Your task to perform on an android device: see sites visited before in the chrome app Image 0: 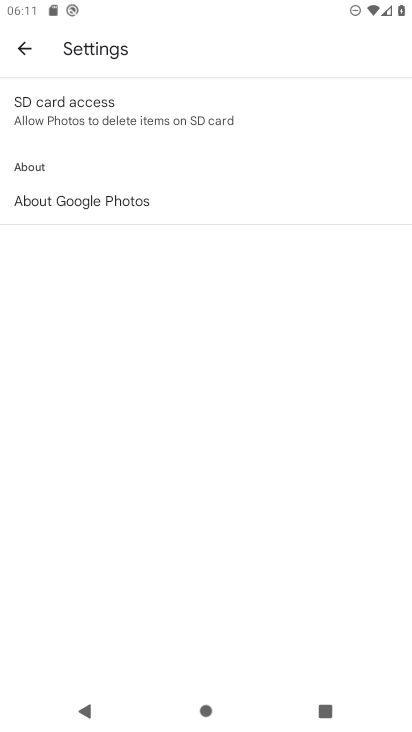
Step 0: press home button
Your task to perform on an android device: see sites visited before in the chrome app Image 1: 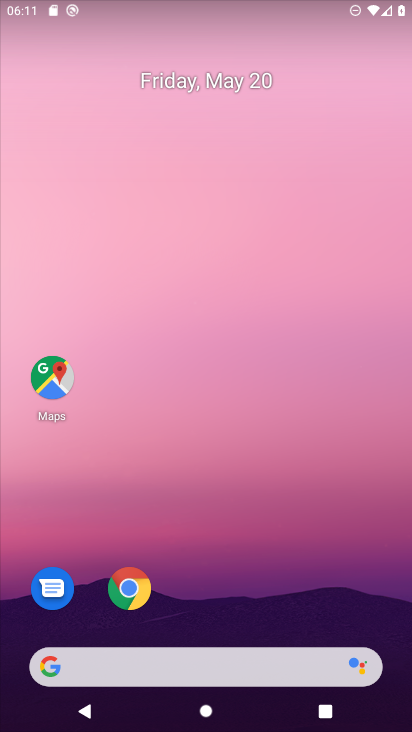
Step 1: click (121, 590)
Your task to perform on an android device: see sites visited before in the chrome app Image 2: 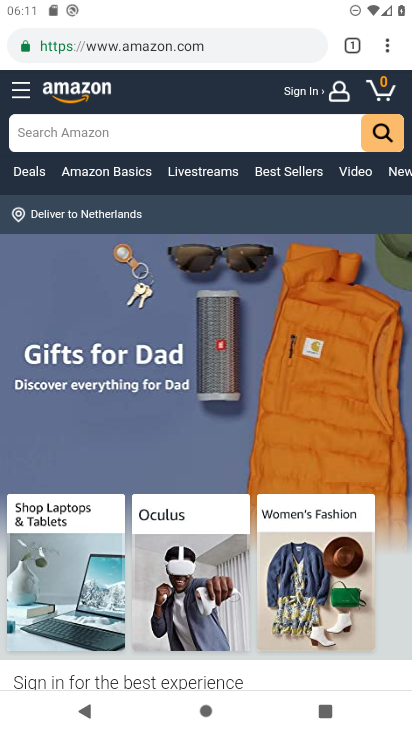
Step 2: click (389, 40)
Your task to perform on an android device: see sites visited before in the chrome app Image 3: 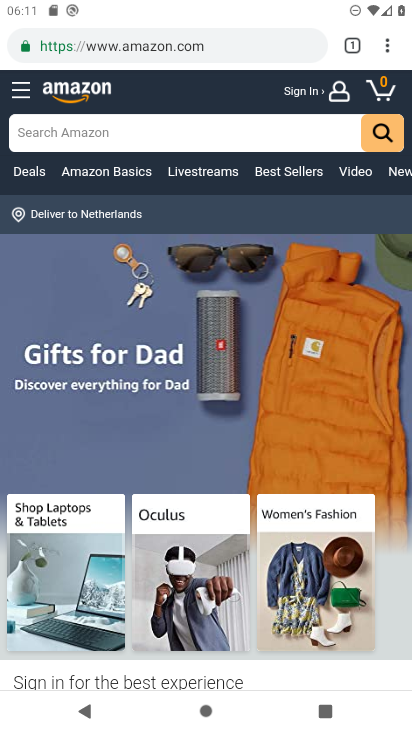
Step 3: click (389, 46)
Your task to perform on an android device: see sites visited before in the chrome app Image 4: 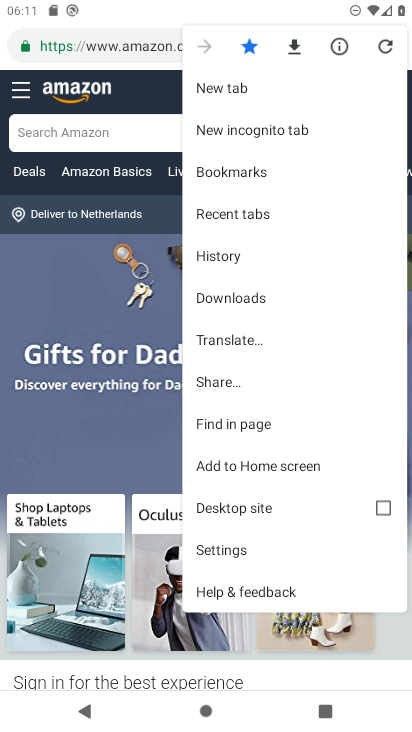
Step 4: click (229, 266)
Your task to perform on an android device: see sites visited before in the chrome app Image 5: 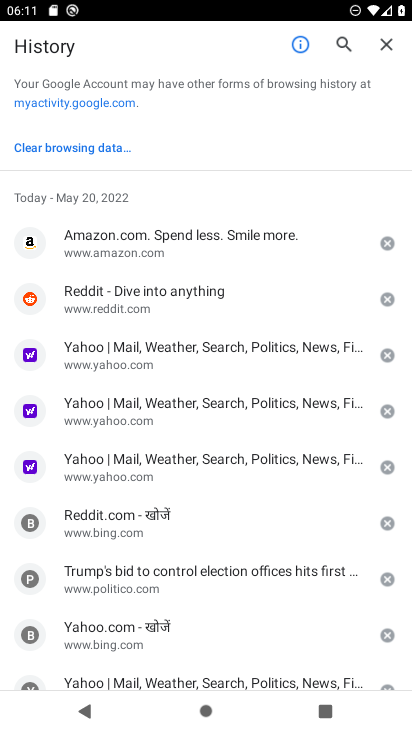
Step 5: task complete